Your task to perform on an android device: change the upload size in google photos Image 0: 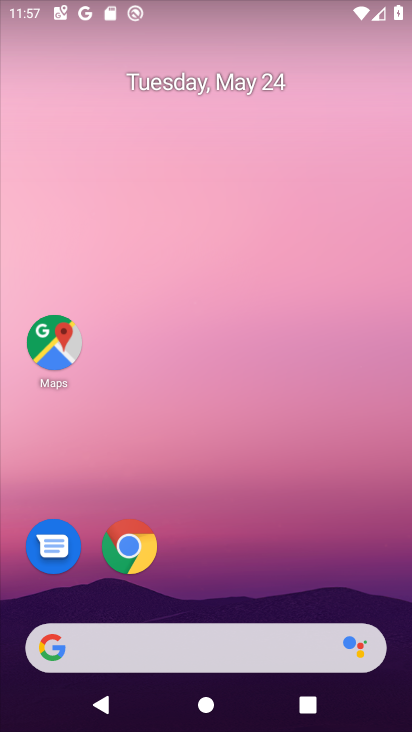
Step 0: drag from (217, 509) to (302, 16)
Your task to perform on an android device: change the upload size in google photos Image 1: 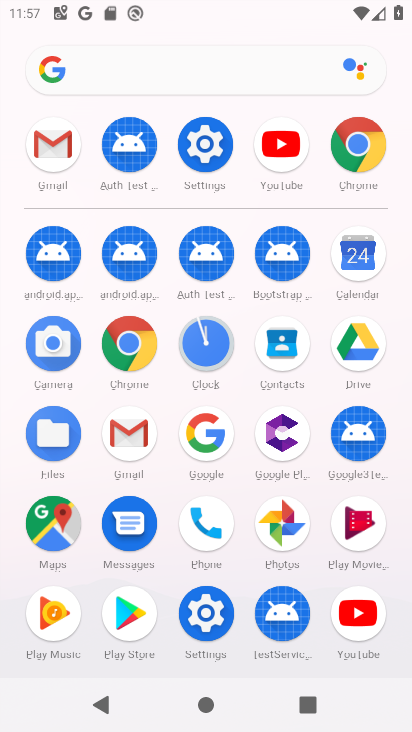
Step 1: click (278, 545)
Your task to perform on an android device: change the upload size in google photos Image 2: 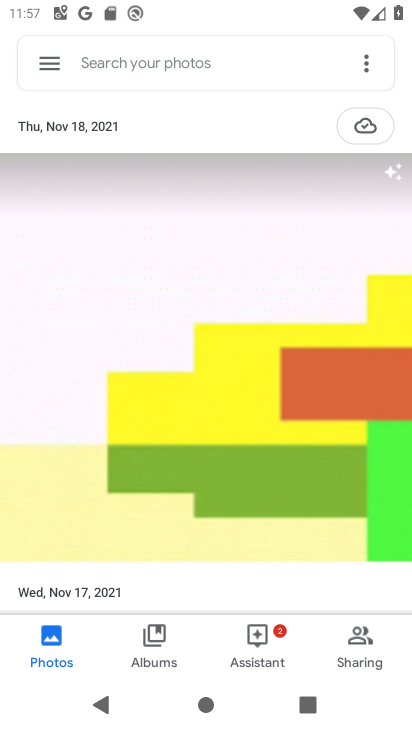
Step 2: click (55, 65)
Your task to perform on an android device: change the upload size in google photos Image 3: 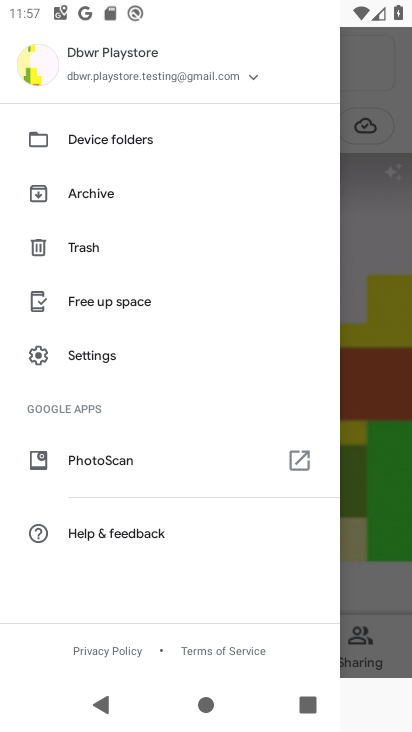
Step 3: click (99, 356)
Your task to perform on an android device: change the upload size in google photos Image 4: 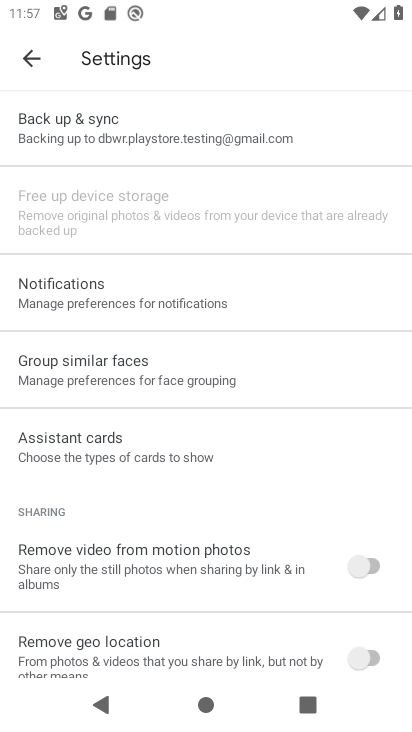
Step 4: click (125, 118)
Your task to perform on an android device: change the upload size in google photos Image 5: 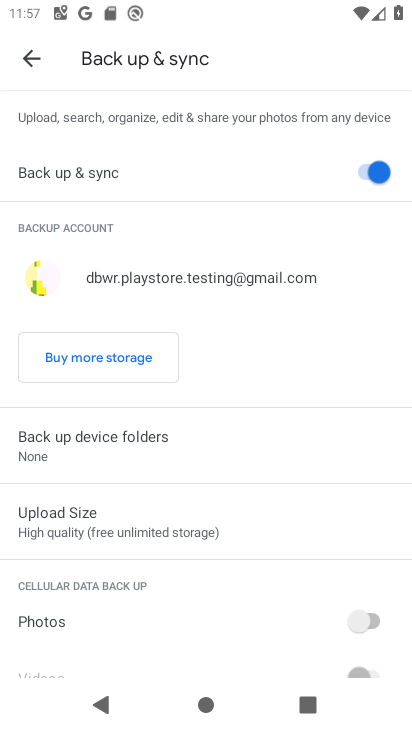
Step 5: click (159, 510)
Your task to perform on an android device: change the upload size in google photos Image 6: 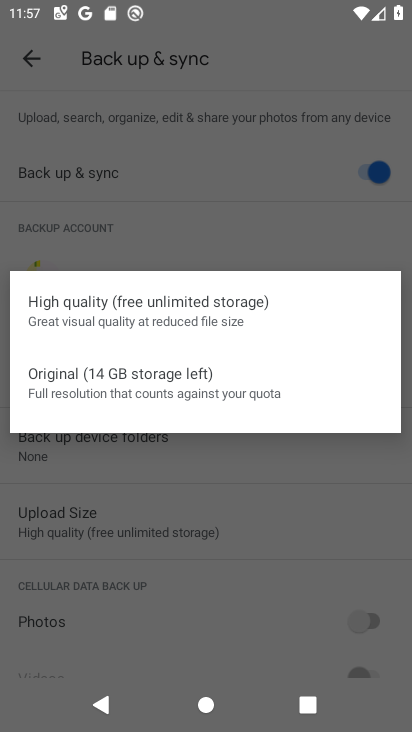
Step 6: click (111, 384)
Your task to perform on an android device: change the upload size in google photos Image 7: 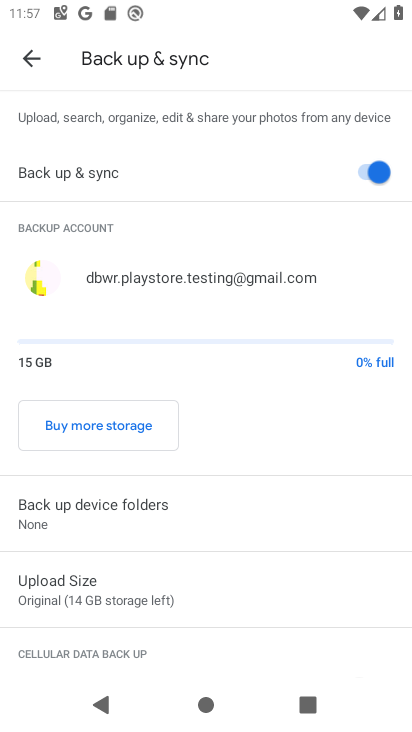
Step 7: task complete